Your task to perform on an android device: turn on showing notifications on the lock screen Image 0: 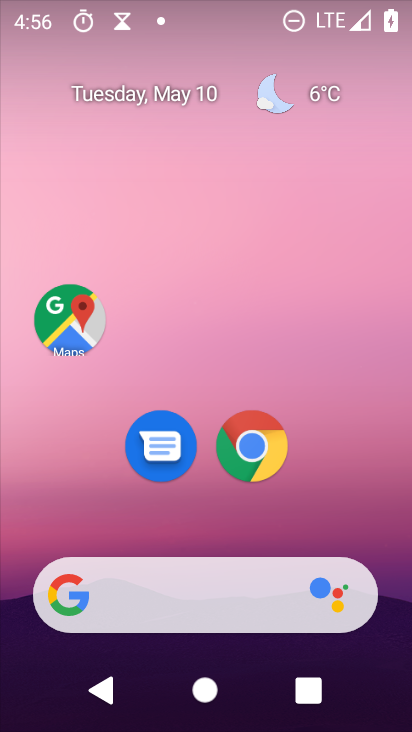
Step 0: drag from (293, 545) to (168, 17)
Your task to perform on an android device: turn on showing notifications on the lock screen Image 1: 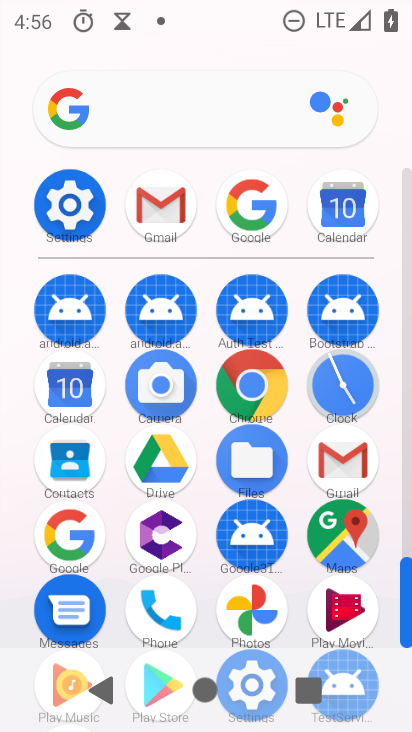
Step 1: click (68, 199)
Your task to perform on an android device: turn on showing notifications on the lock screen Image 2: 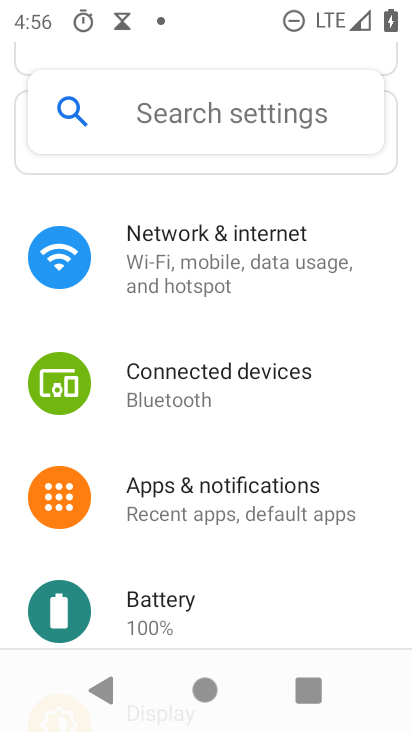
Step 2: click (264, 504)
Your task to perform on an android device: turn on showing notifications on the lock screen Image 3: 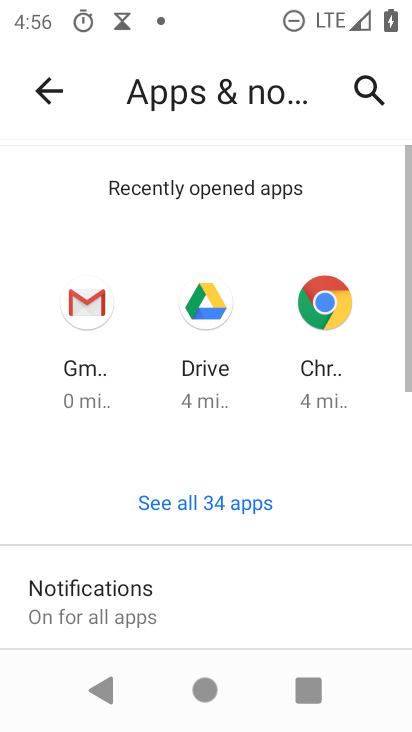
Step 3: click (144, 598)
Your task to perform on an android device: turn on showing notifications on the lock screen Image 4: 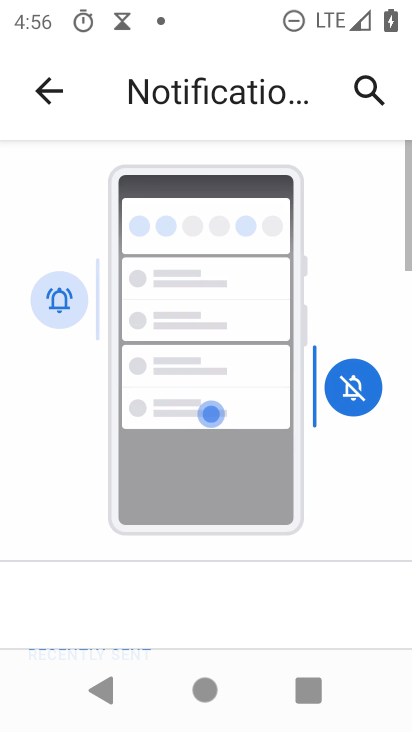
Step 4: drag from (246, 593) to (223, 129)
Your task to perform on an android device: turn on showing notifications on the lock screen Image 5: 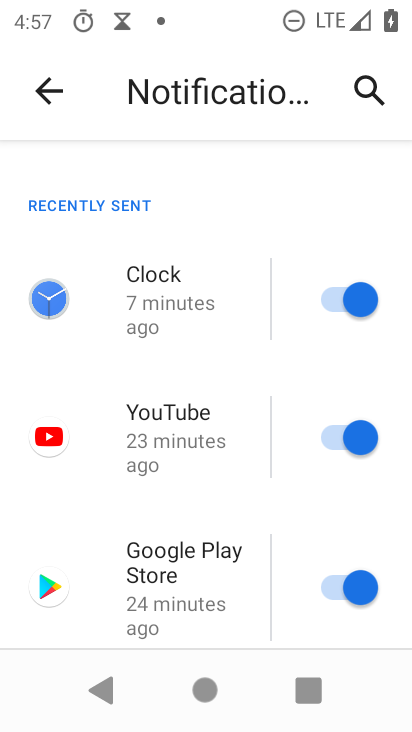
Step 5: drag from (216, 498) to (210, 195)
Your task to perform on an android device: turn on showing notifications on the lock screen Image 6: 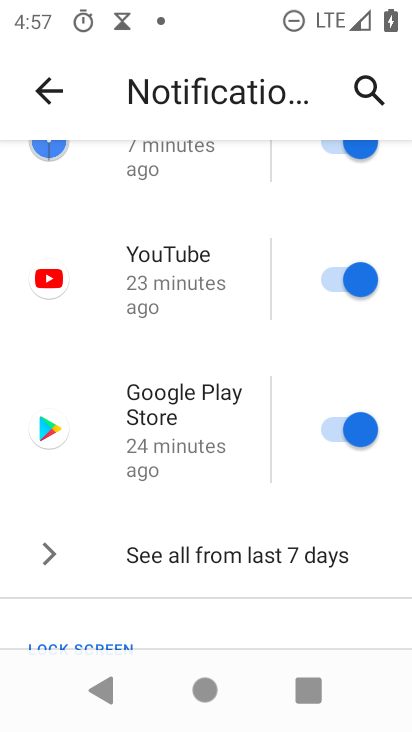
Step 6: drag from (221, 595) to (203, 290)
Your task to perform on an android device: turn on showing notifications on the lock screen Image 7: 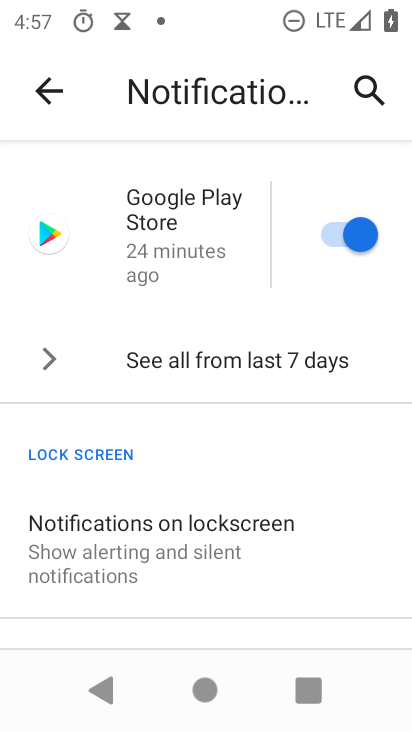
Step 7: click (220, 534)
Your task to perform on an android device: turn on showing notifications on the lock screen Image 8: 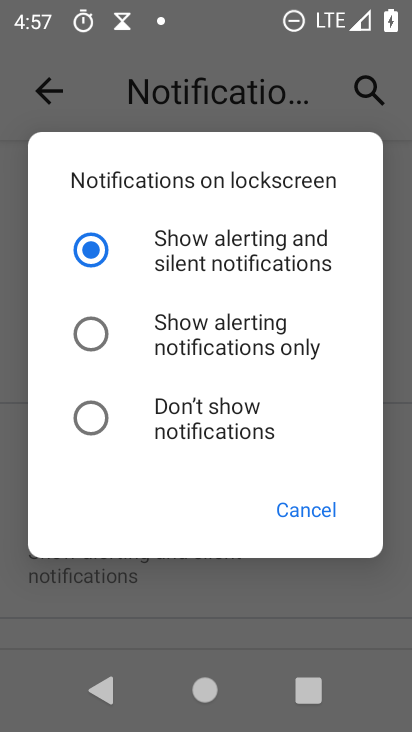
Step 8: task complete